Your task to perform on an android device: Open settings Image 0: 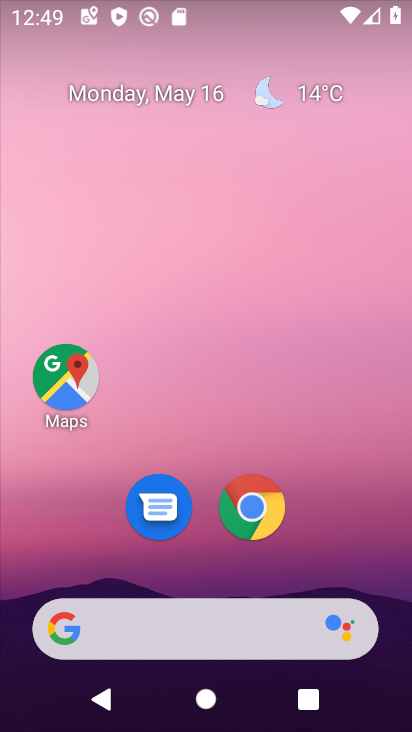
Step 0: drag from (304, 567) to (284, 160)
Your task to perform on an android device: Open settings Image 1: 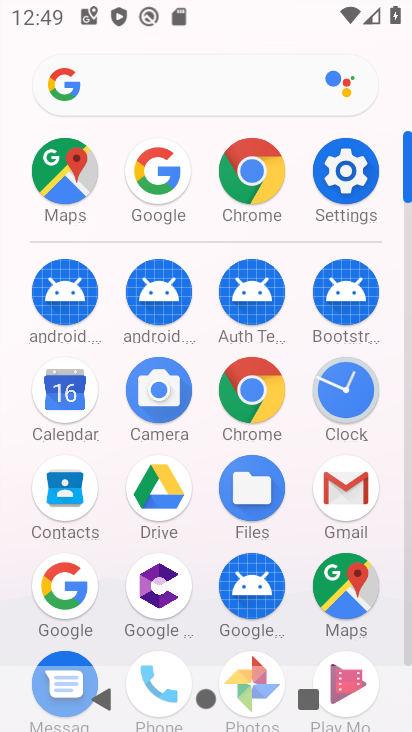
Step 1: click (338, 185)
Your task to perform on an android device: Open settings Image 2: 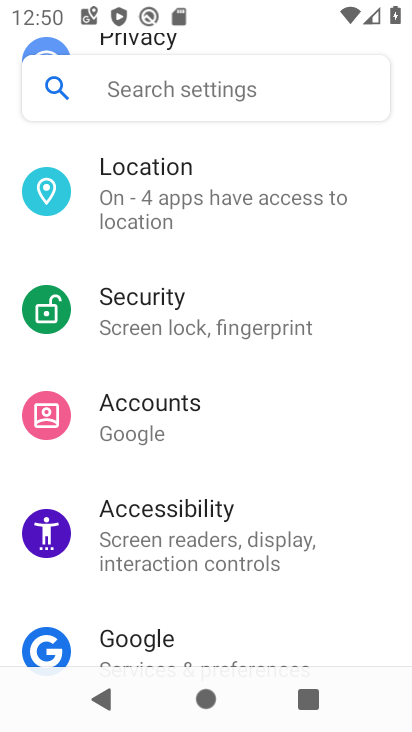
Step 2: task complete